Your task to perform on an android device: change notification settings in the gmail app Image 0: 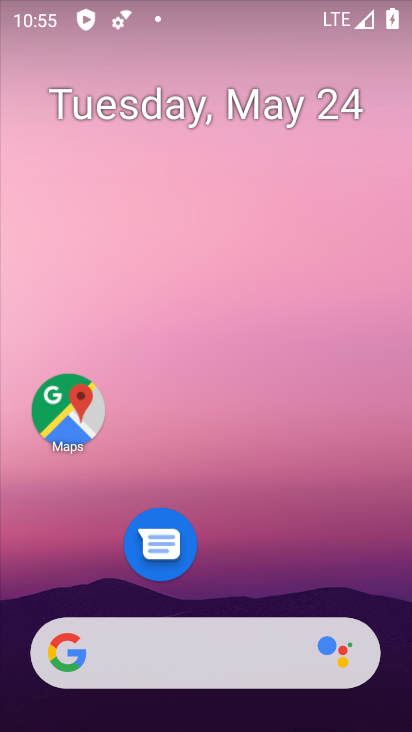
Step 0: drag from (175, 639) to (132, 3)
Your task to perform on an android device: change notification settings in the gmail app Image 1: 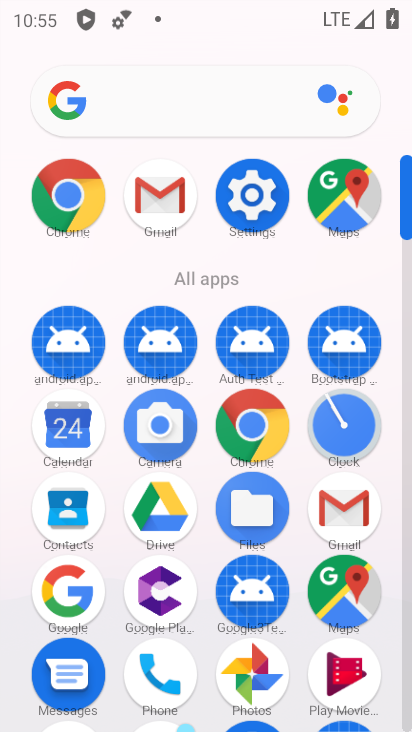
Step 1: click (156, 197)
Your task to perform on an android device: change notification settings in the gmail app Image 2: 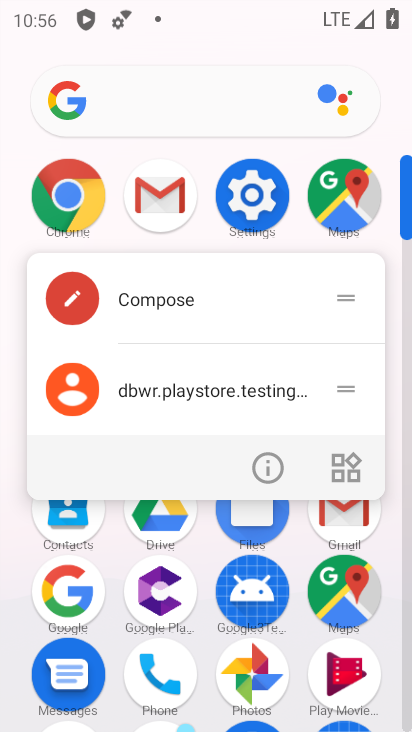
Step 2: click (175, 209)
Your task to perform on an android device: change notification settings in the gmail app Image 3: 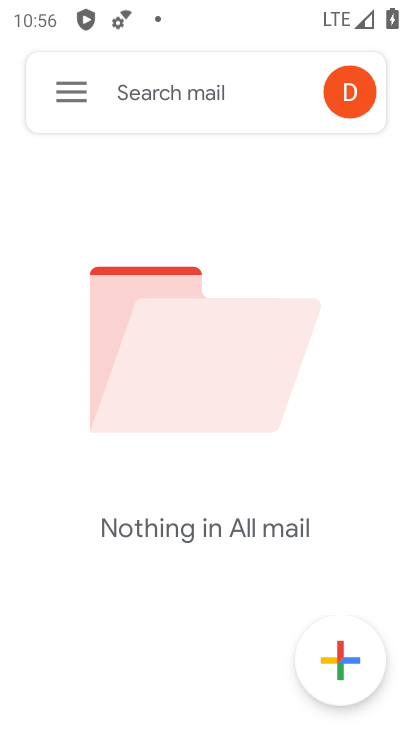
Step 3: click (84, 89)
Your task to perform on an android device: change notification settings in the gmail app Image 4: 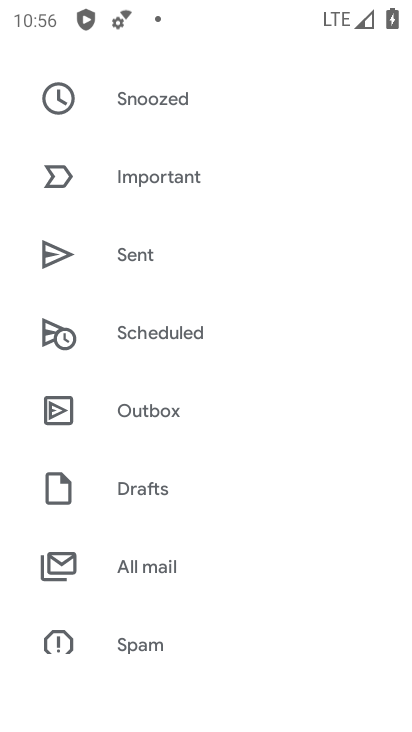
Step 4: drag from (203, 543) to (190, 236)
Your task to perform on an android device: change notification settings in the gmail app Image 5: 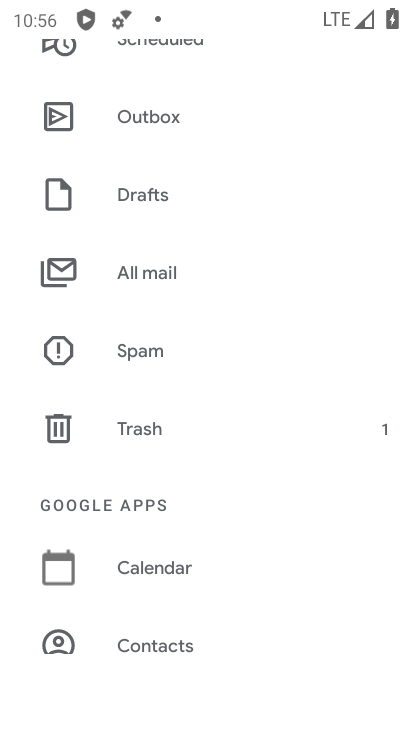
Step 5: drag from (176, 589) to (154, 229)
Your task to perform on an android device: change notification settings in the gmail app Image 6: 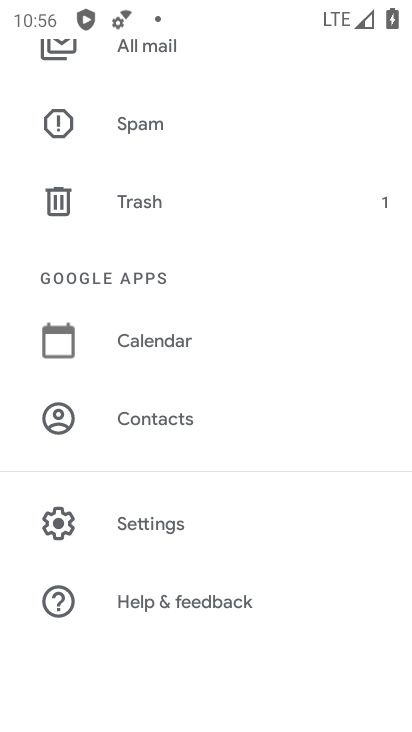
Step 6: click (158, 533)
Your task to perform on an android device: change notification settings in the gmail app Image 7: 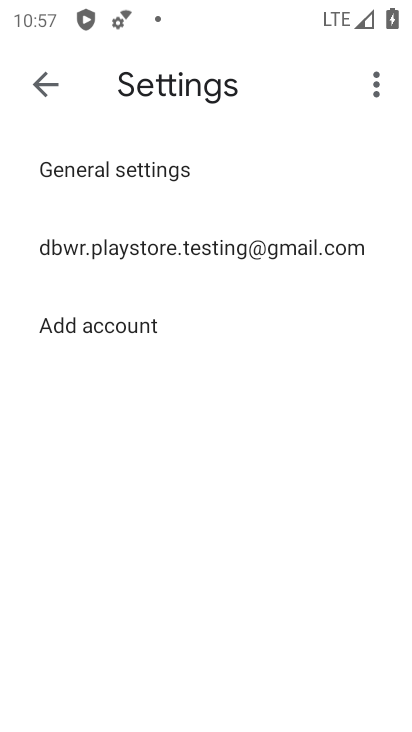
Step 7: click (229, 242)
Your task to perform on an android device: change notification settings in the gmail app Image 8: 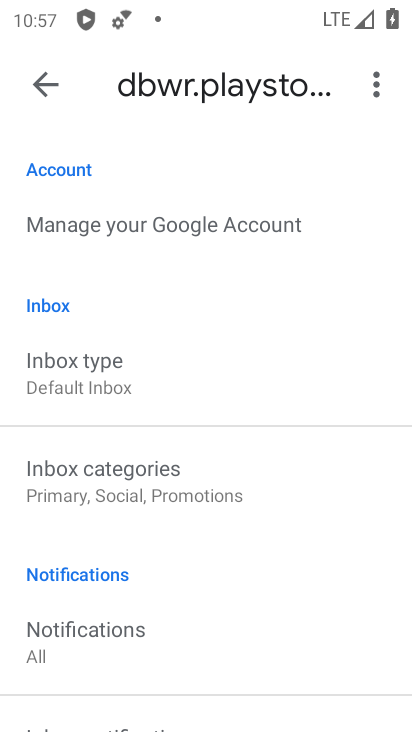
Step 8: drag from (171, 603) to (243, 236)
Your task to perform on an android device: change notification settings in the gmail app Image 9: 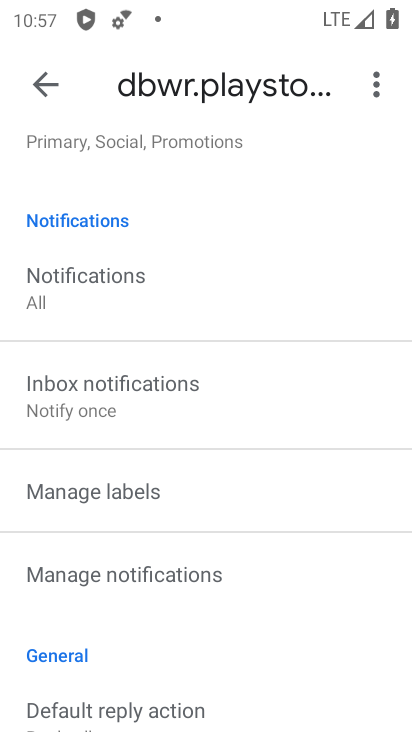
Step 9: click (116, 576)
Your task to perform on an android device: change notification settings in the gmail app Image 10: 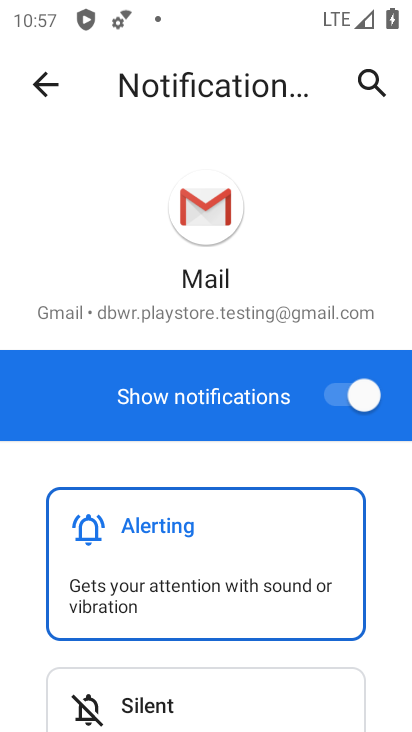
Step 10: click (348, 403)
Your task to perform on an android device: change notification settings in the gmail app Image 11: 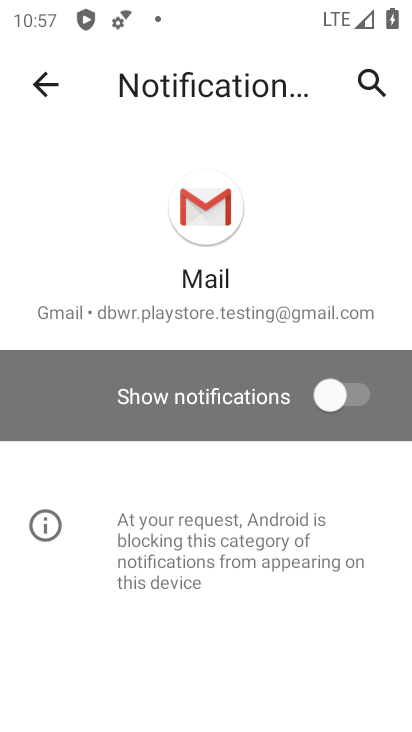
Step 11: task complete